Your task to perform on an android device: Open Chrome and go to settings Image 0: 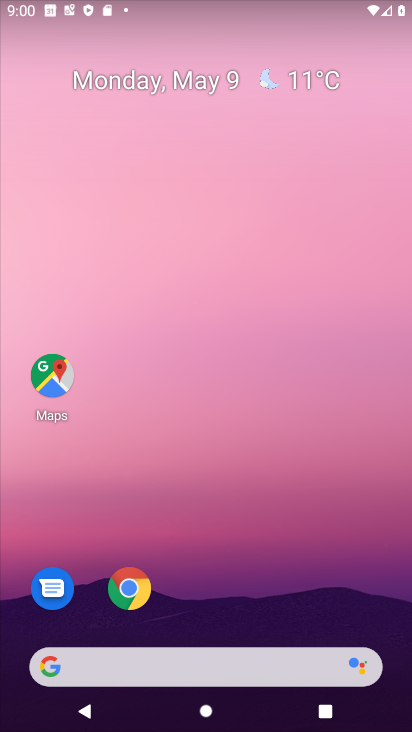
Step 0: drag from (185, 674) to (303, 248)
Your task to perform on an android device: Open Chrome and go to settings Image 1: 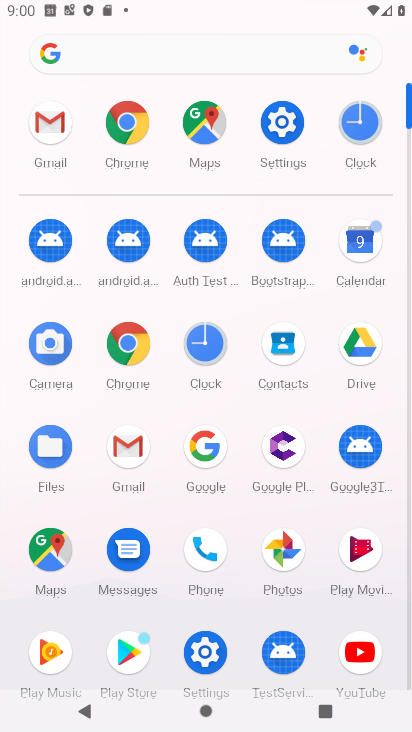
Step 1: click (132, 127)
Your task to perform on an android device: Open Chrome and go to settings Image 2: 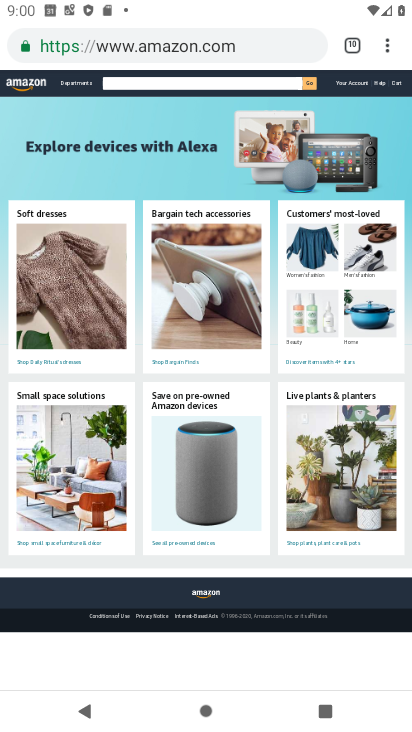
Step 2: task complete